Your task to perform on an android device: Search for duracell triple a on target.com, select the first entry, and add it to the cart. Image 0: 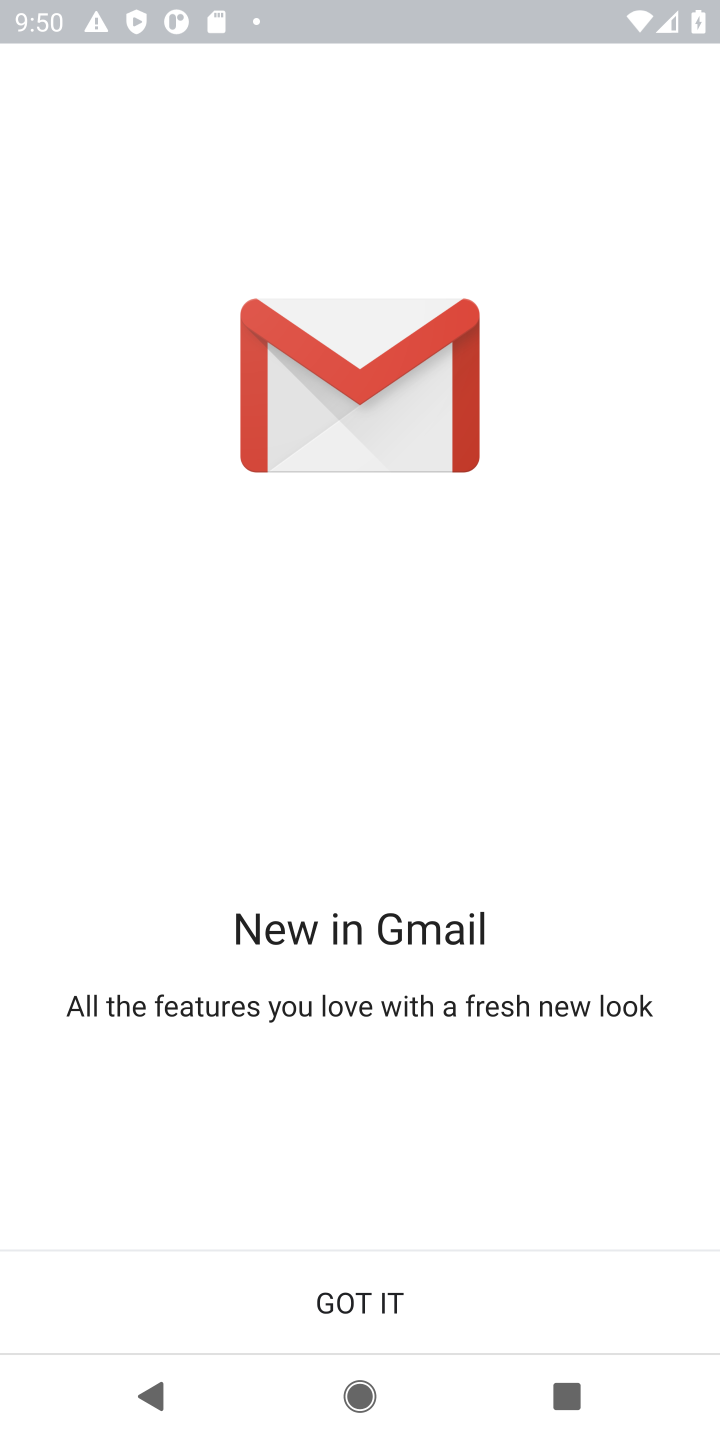
Step 0: press home button
Your task to perform on an android device: Search for duracell triple a on target.com, select the first entry, and add it to the cart. Image 1: 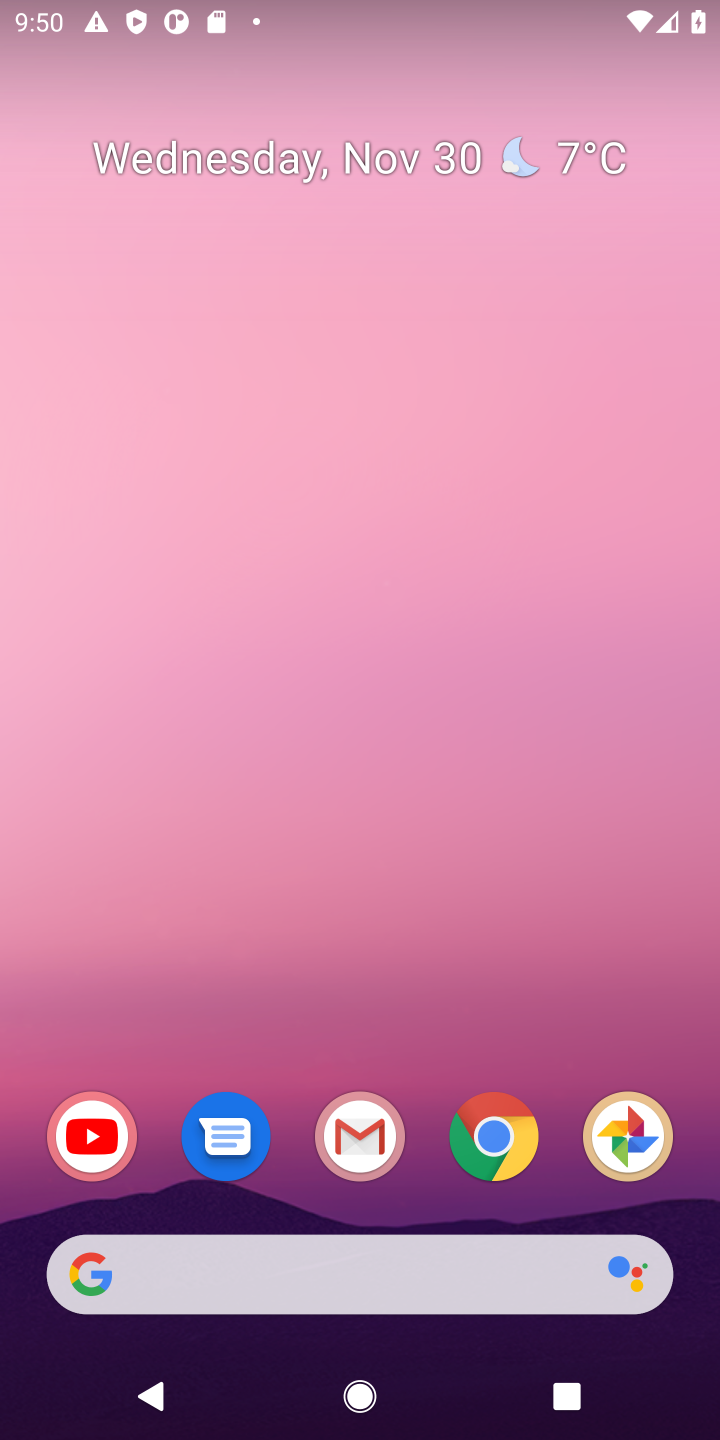
Step 1: click (493, 1129)
Your task to perform on an android device: Search for duracell triple a on target.com, select the first entry, and add it to the cart. Image 2: 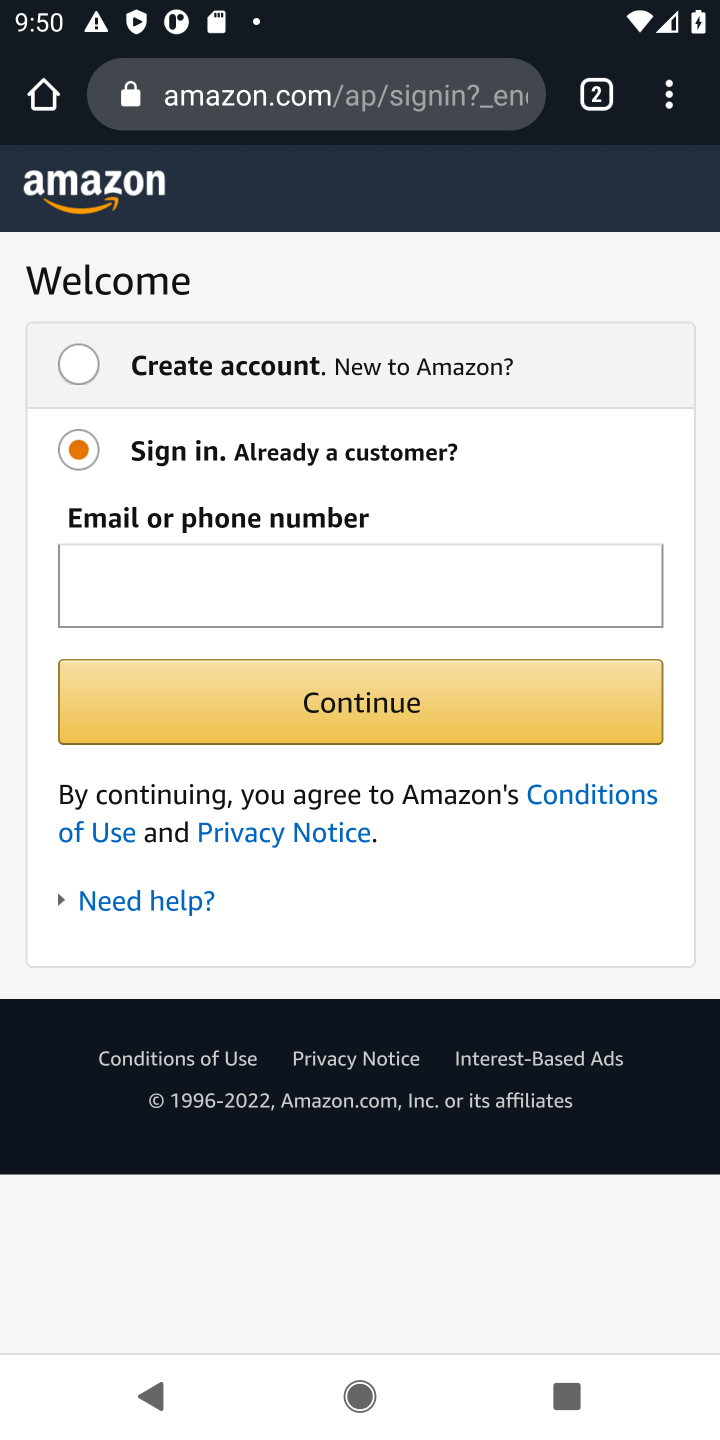
Step 2: click (298, 95)
Your task to perform on an android device: Search for duracell triple a on target.com, select the first entry, and add it to the cart. Image 3: 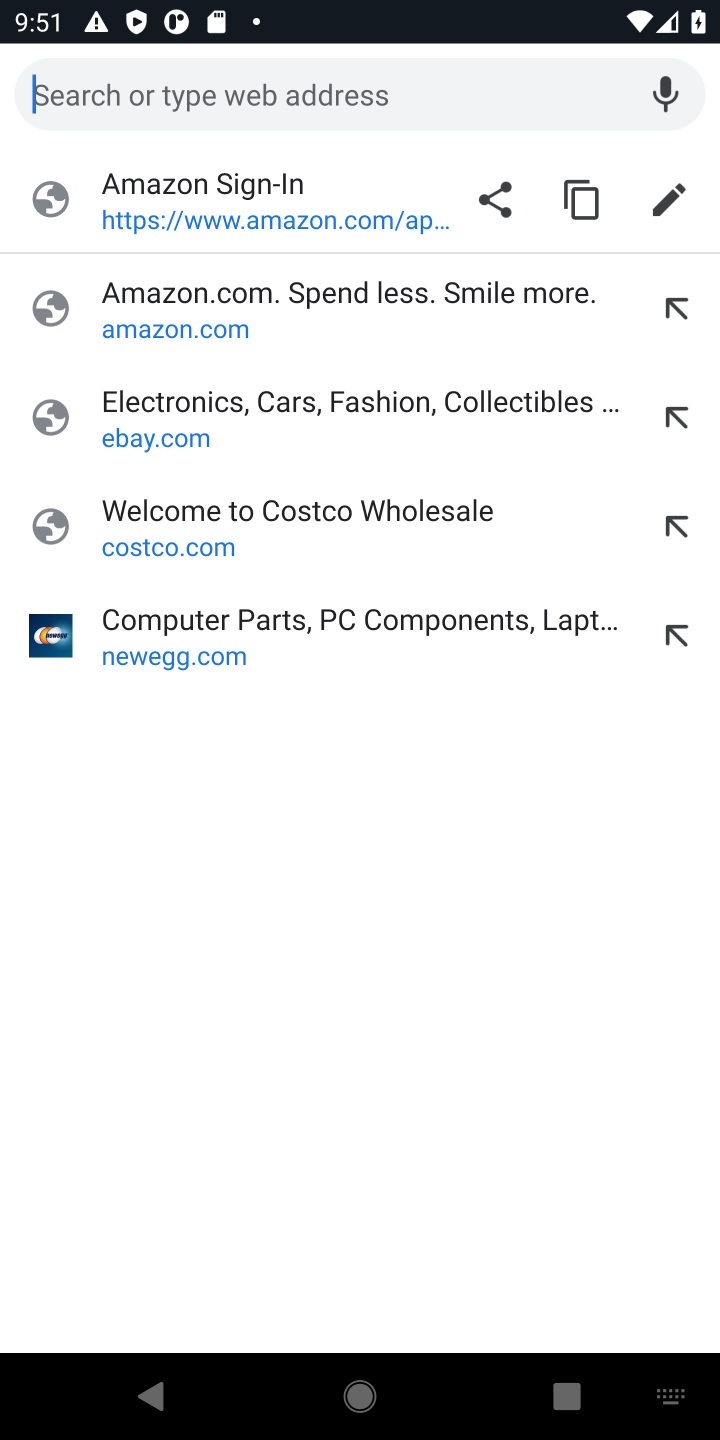
Step 3: type "target.com"
Your task to perform on an android device: Search for duracell triple a on target.com, select the first entry, and add it to the cart. Image 4: 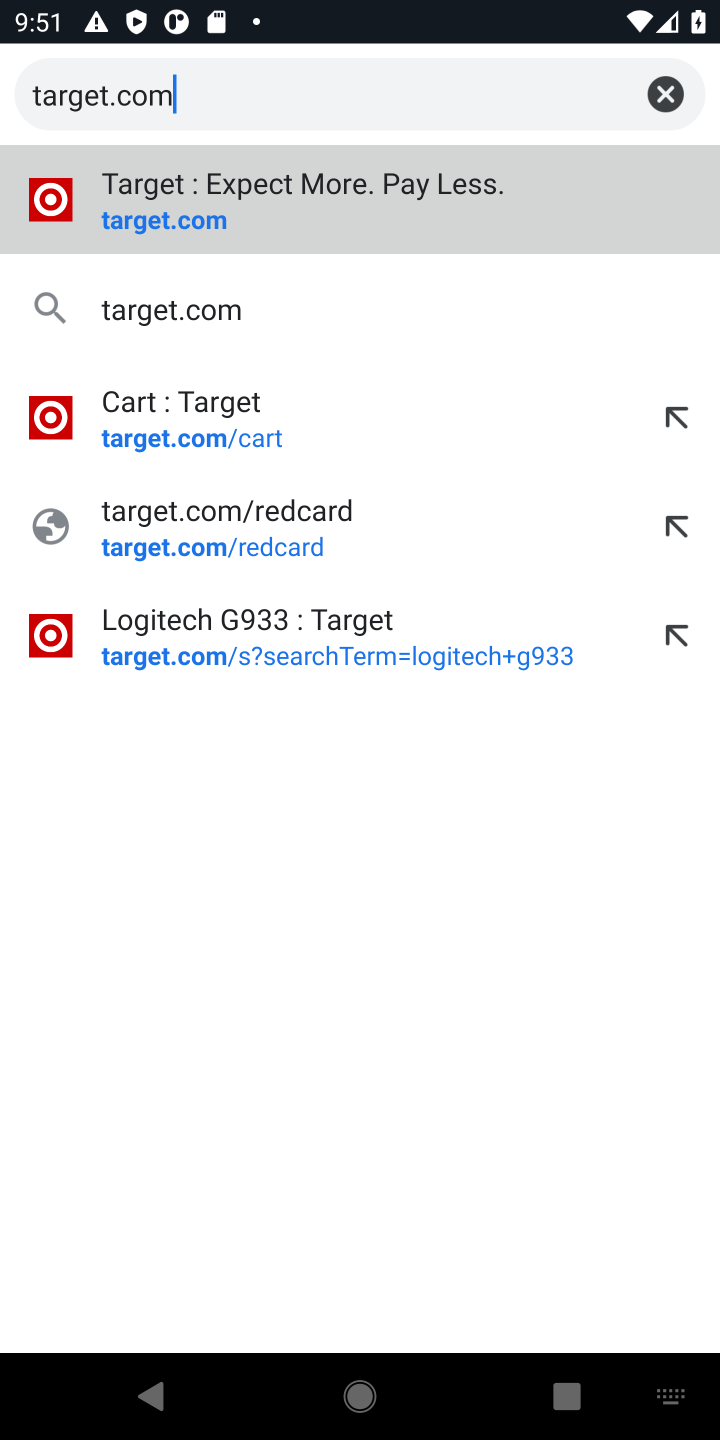
Step 4: click (132, 226)
Your task to perform on an android device: Search for duracell triple a on target.com, select the first entry, and add it to the cart. Image 5: 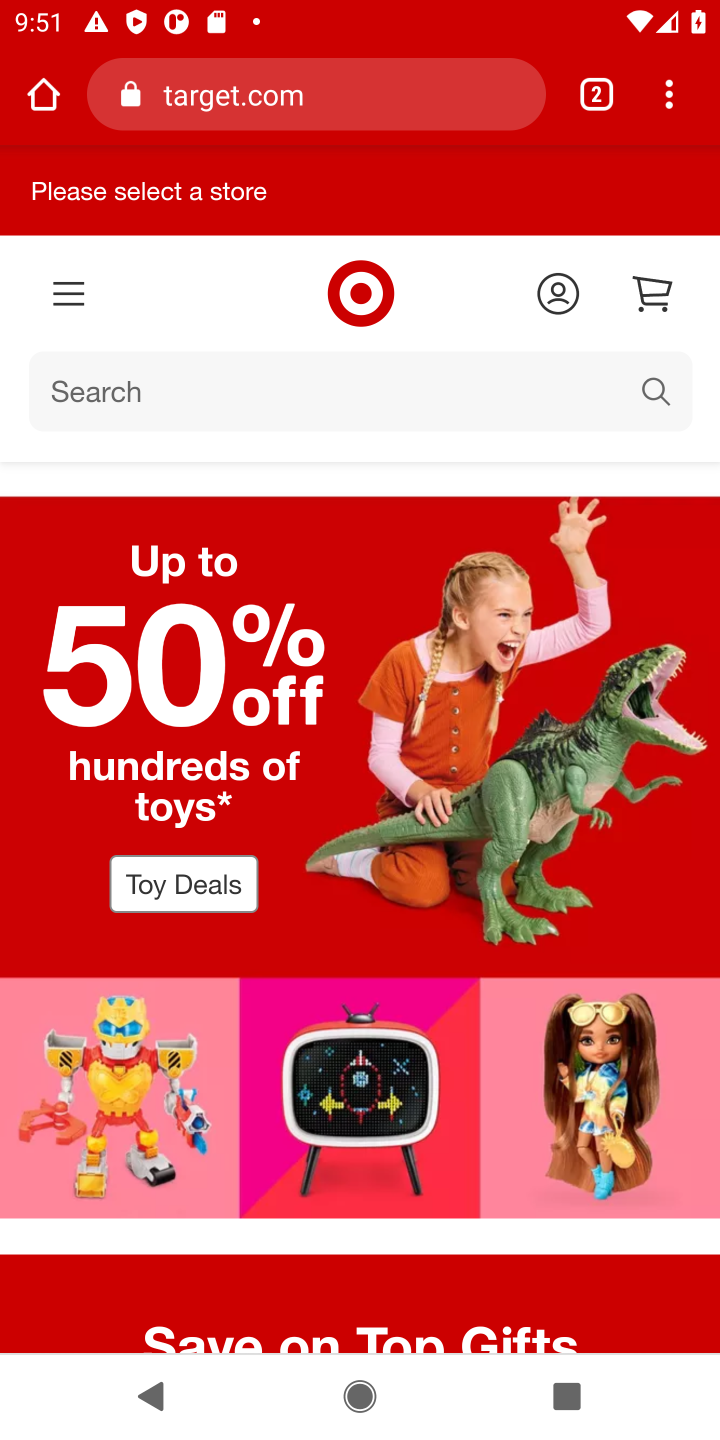
Step 5: click (63, 392)
Your task to perform on an android device: Search for duracell triple a on target.com, select the first entry, and add it to the cart. Image 6: 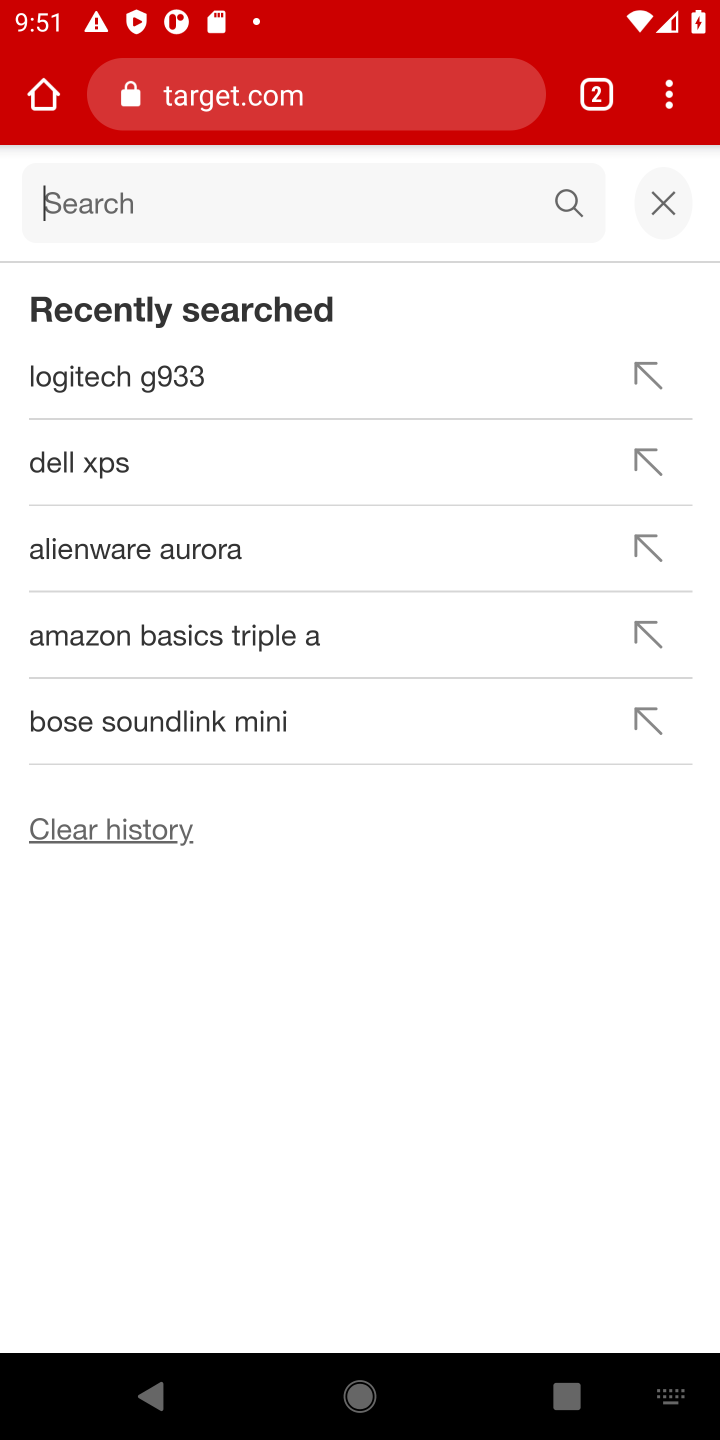
Step 6: type "duracell triple a"
Your task to perform on an android device: Search for duracell triple a on target.com, select the first entry, and add it to the cart. Image 7: 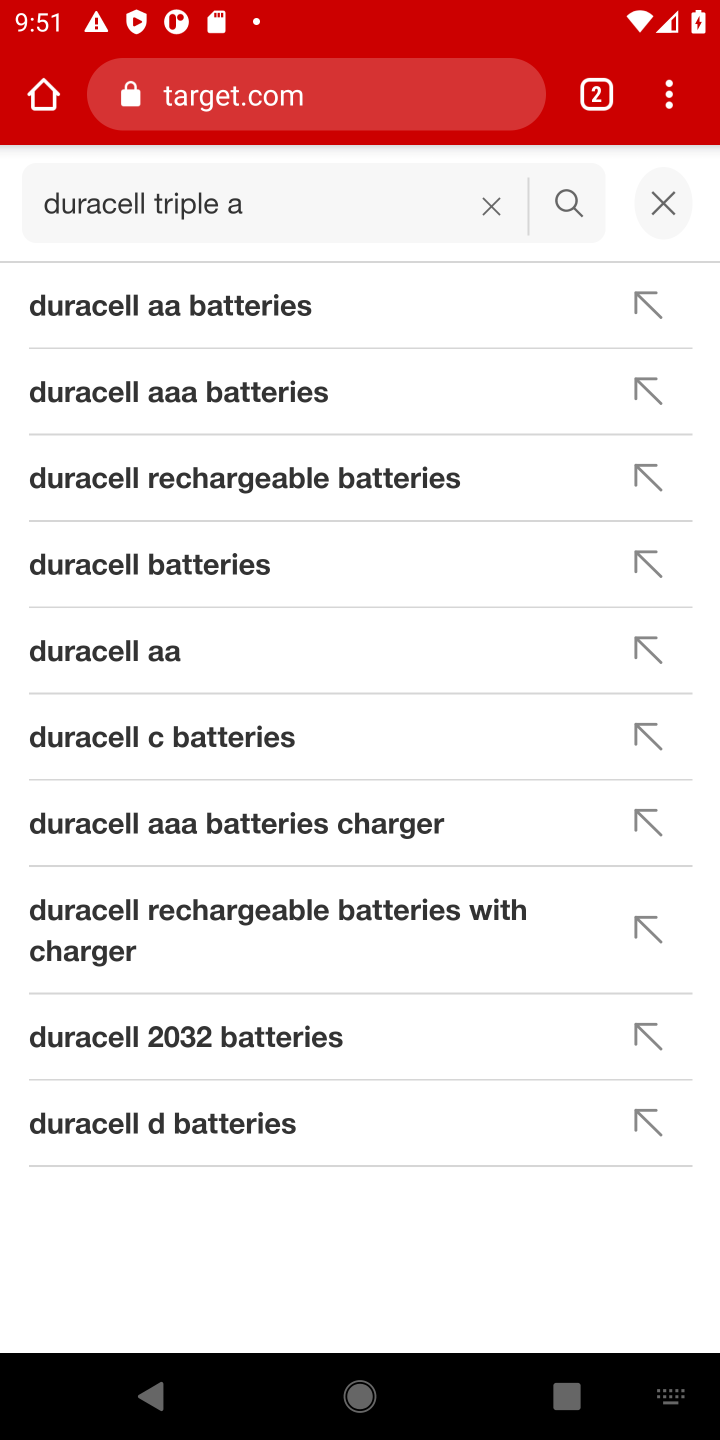
Step 7: click (568, 207)
Your task to perform on an android device: Search for duracell triple a on target.com, select the first entry, and add it to the cart. Image 8: 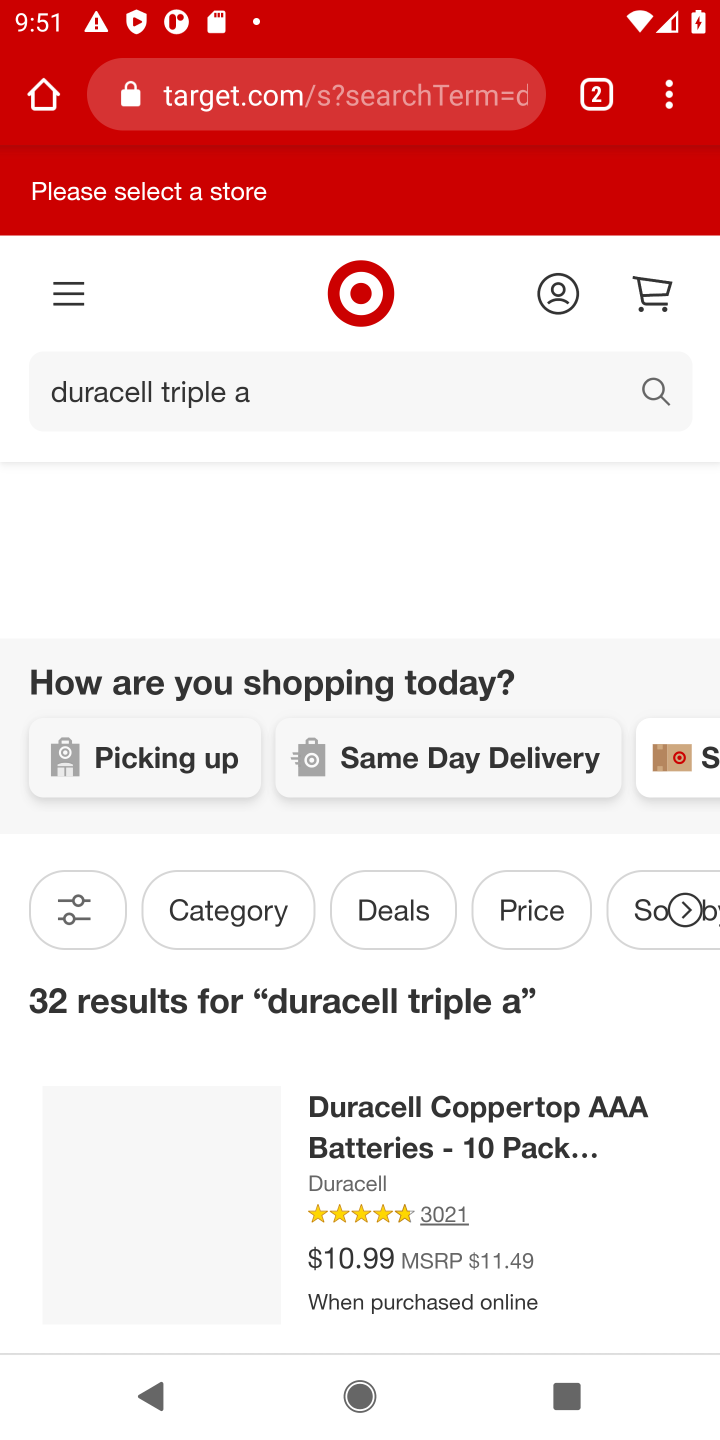
Step 8: drag from (386, 855) to (394, 461)
Your task to perform on an android device: Search for duracell triple a on target.com, select the first entry, and add it to the cart. Image 9: 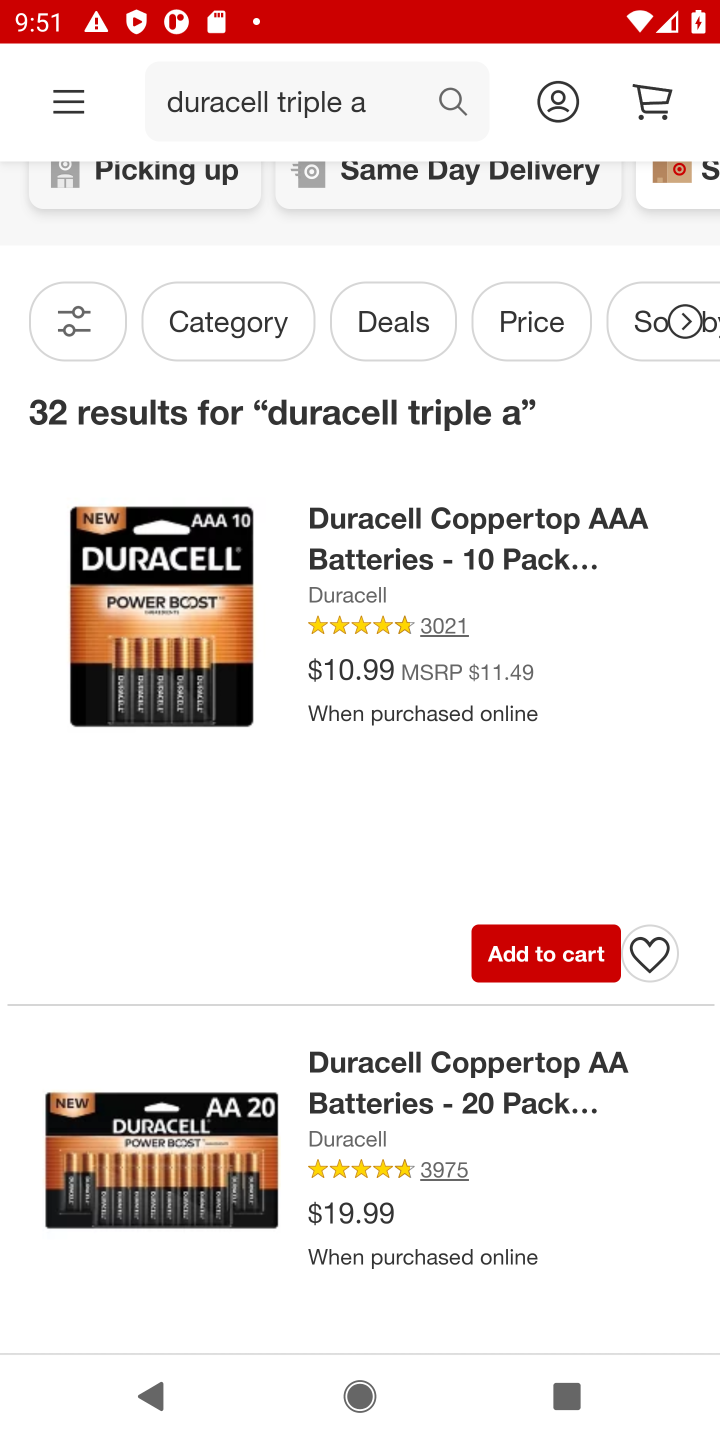
Step 9: click (521, 960)
Your task to perform on an android device: Search for duracell triple a on target.com, select the first entry, and add it to the cart. Image 10: 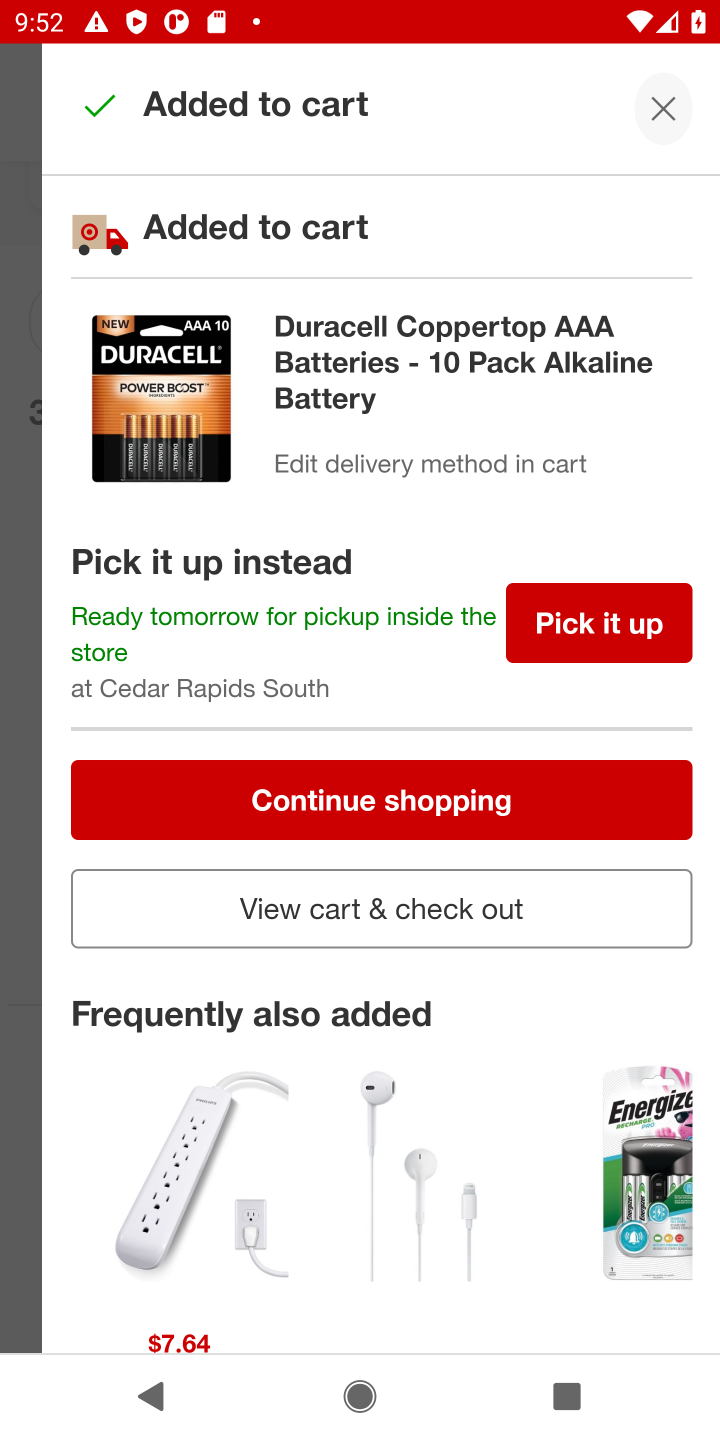
Step 10: task complete